Your task to perform on an android device: find snoozed emails in the gmail app Image 0: 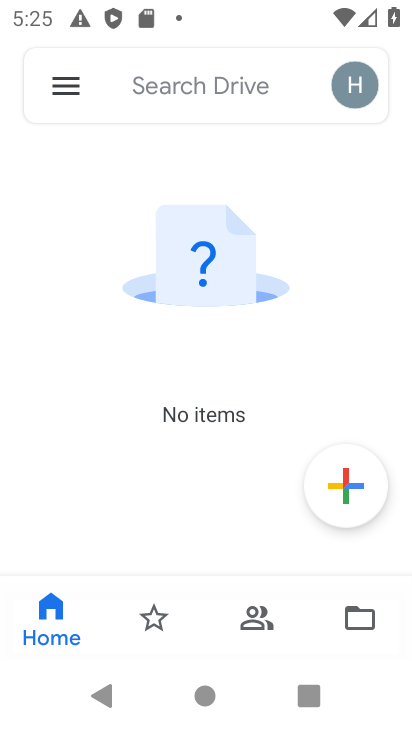
Step 0: click (207, 690)
Your task to perform on an android device: find snoozed emails in the gmail app Image 1: 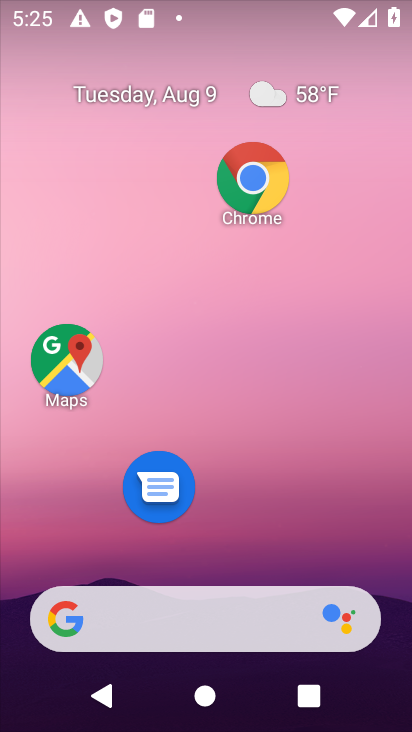
Step 1: drag from (252, 528) to (146, 18)
Your task to perform on an android device: find snoozed emails in the gmail app Image 2: 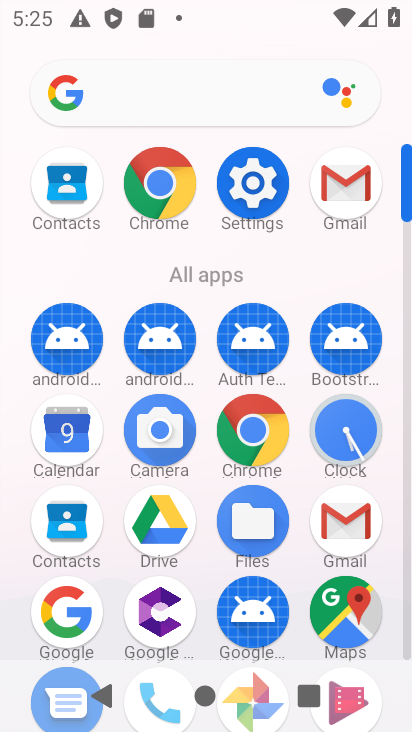
Step 2: click (347, 192)
Your task to perform on an android device: find snoozed emails in the gmail app Image 3: 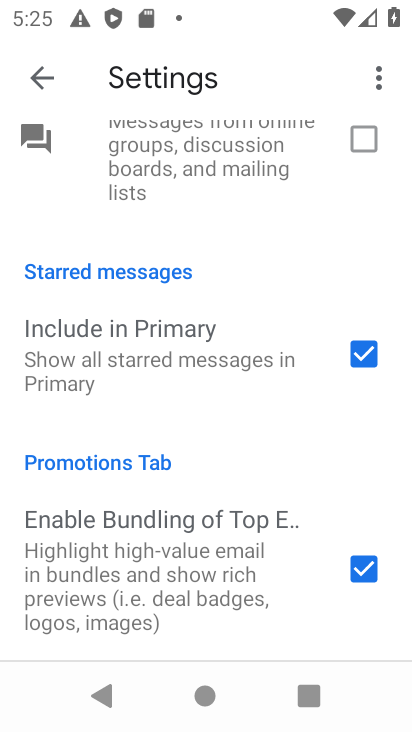
Step 3: click (42, 83)
Your task to perform on an android device: find snoozed emails in the gmail app Image 4: 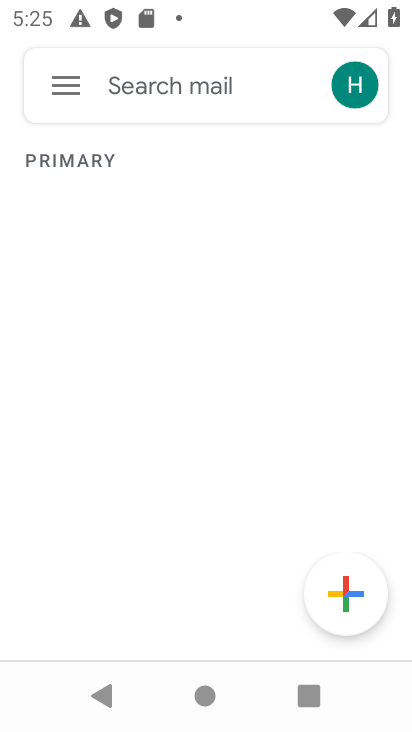
Step 4: click (65, 90)
Your task to perform on an android device: find snoozed emails in the gmail app Image 5: 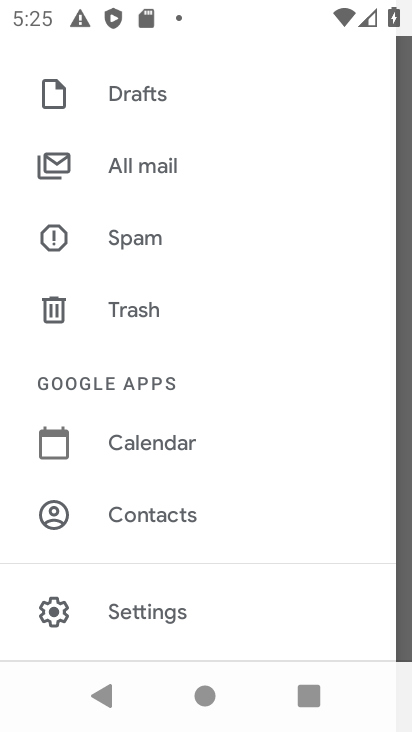
Step 5: drag from (276, 223) to (243, 698)
Your task to perform on an android device: find snoozed emails in the gmail app Image 6: 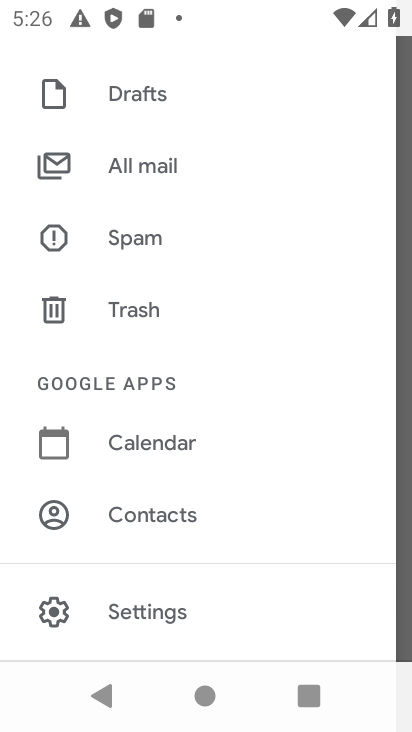
Step 6: drag from (208, 176) to (220, 680)
Your task to perform on an android device: find snoozed emails in the gmail app Image 7: 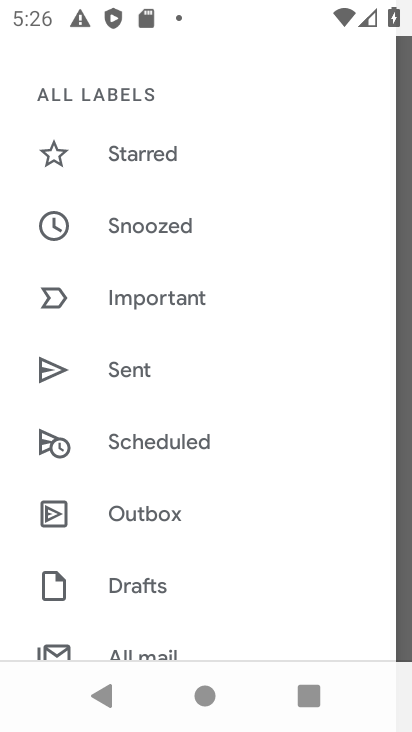
Step 7: click (139, 236)
Your task to perform on an android device: find snoozed emails in the gmail app Image 8: 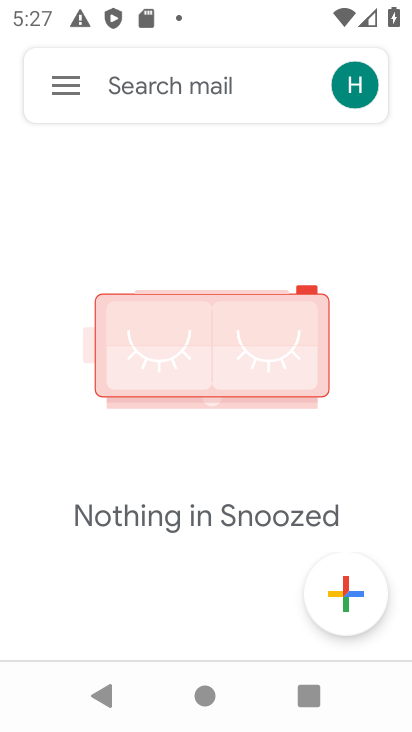
Step 8: task complete